Your task to perform on an android device: snooze an email in the gmail app Image 0: 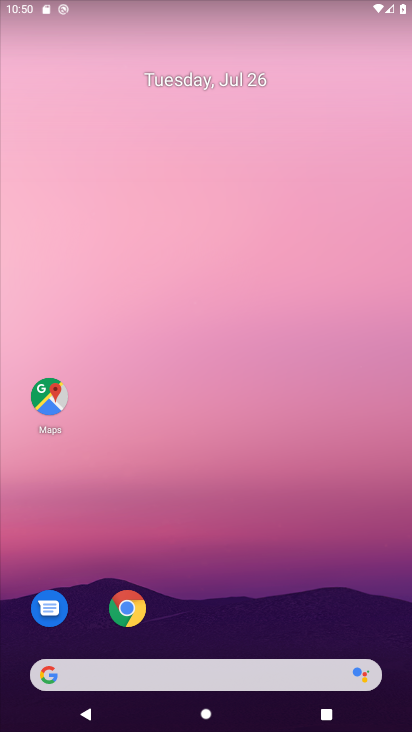
Step 0: drag from (332, 607) to (245, 28)
Your task to perform on an android device: snooze an email in the gmail app Image 1: 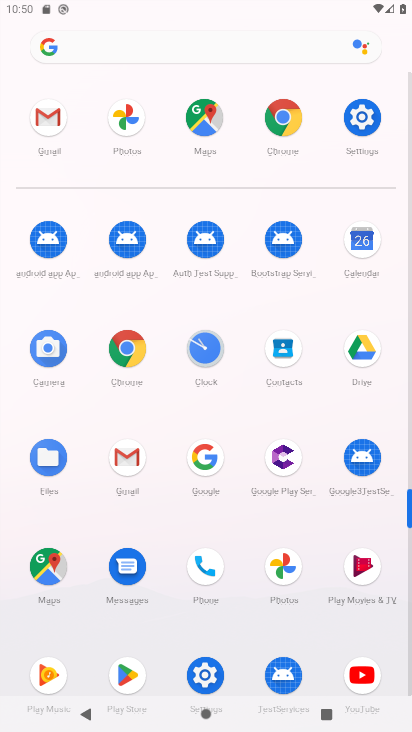
Step 1: click (55, 123)
Your task to perform on an android device: snooze an email in the gmail app Image 2: 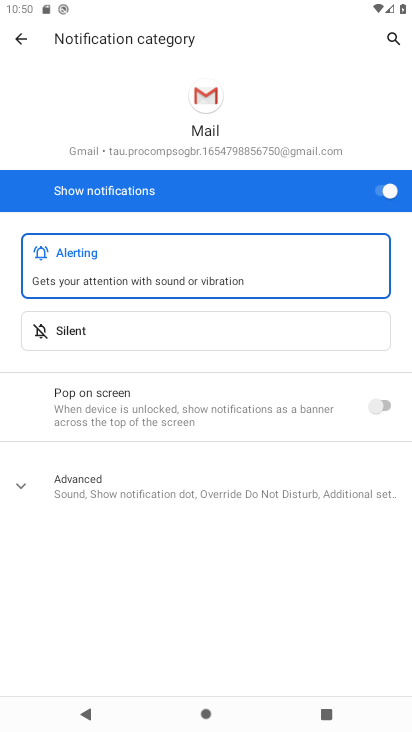
Step 2: click (25, 44)
Your task to perform on an android device: snooze an email in the gmail app Image 3: 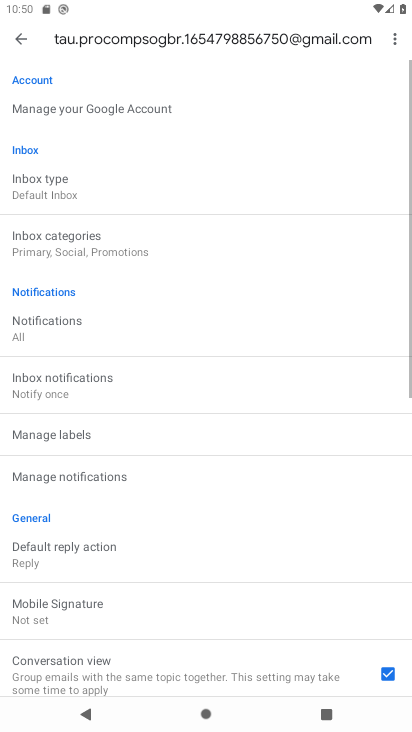
Step 3: click (25, 44)
Your task to perform on an android device: snooze an email in the gmail app Image 4: 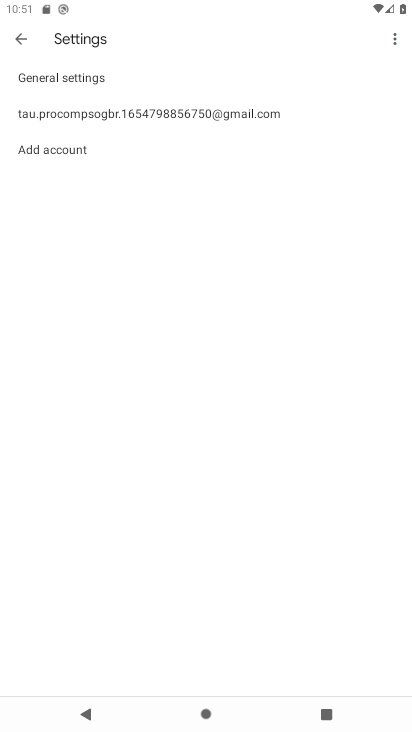
Step 4: click (20, 33)
Your task to perform on an android device: snooze an email in the gmail app Image 5: 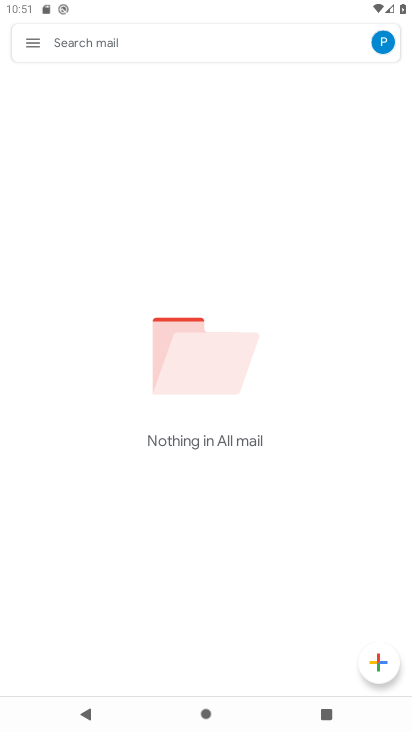
Step 5: click (24, 34)
Your task to perform on an android device: snooze an email in the gmail app Image 6: 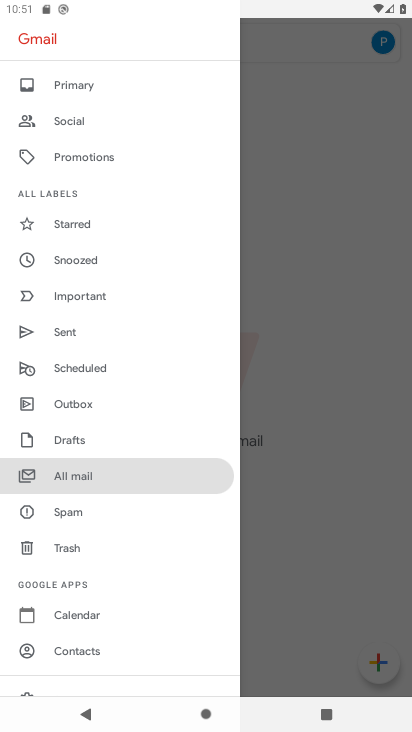
Step 6: task complete